Your task to perform on an android device: Open Google Chrome Image 0: 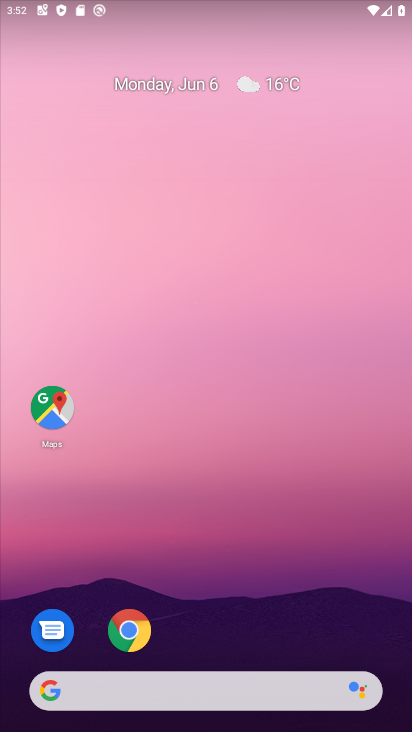
Step 0: click (129, 613)
Your task to perform on an android device: Open Google Chrome Image 1: 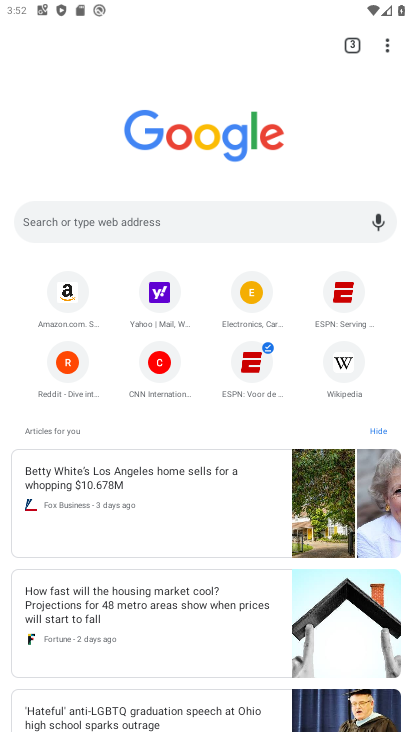
Step 1: task complete